Your task to perform on an android device: all mails in gmail Image 0: 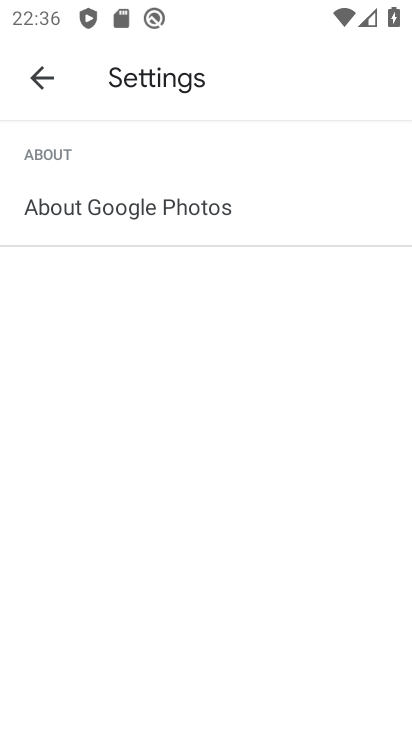
Step 0: press home button
Your task to perform on an android device: all mails in gmail Image 1: 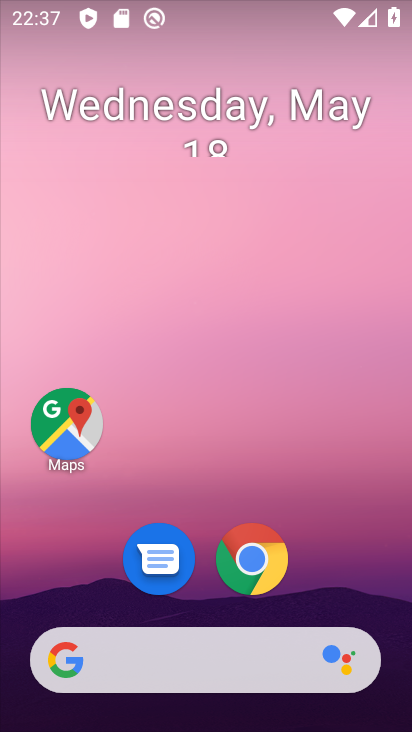
Step 1: drag from (185, 606) to (136, 207)
Your task to perform on an android device: all mails in gmail Image 2: 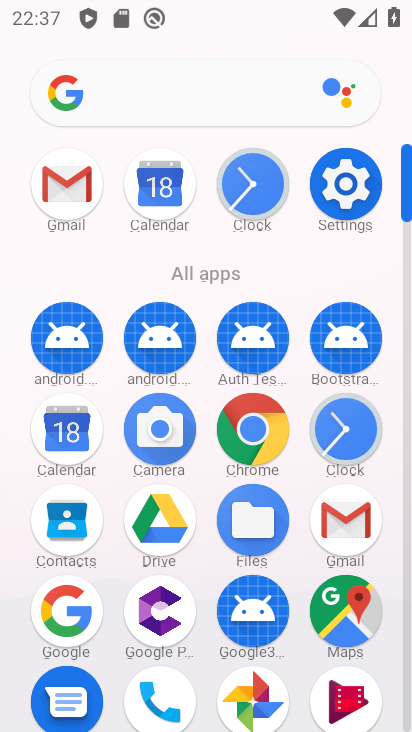
Step 2: click (72, 193)
Your task to perform on an android device: all mails in gmail Image 3: 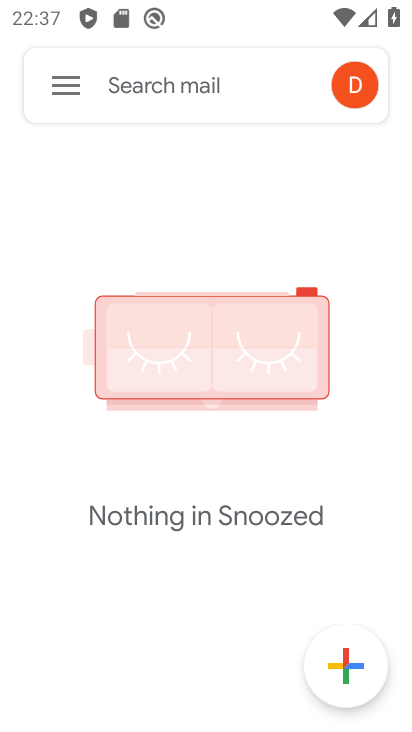
Step 3: click (58, 67)
Your task to perform on an android device: all mails in gmail Image 4: 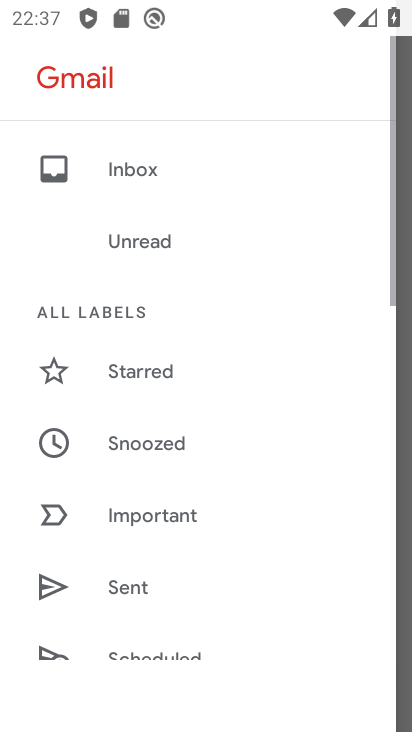
Step 4: drag from (109, 611) to (120, 322)
Your task to perform on an android device: all mails in gmail Image 5: 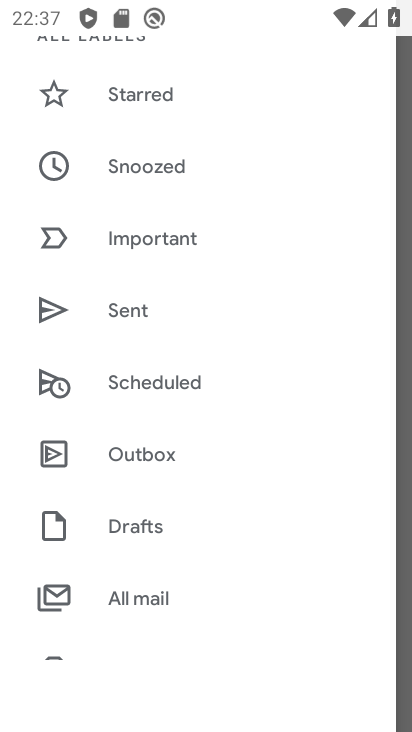
Step 5: click (143, 624)
Your task to perform on an android device: all mails in gmail Image 6: 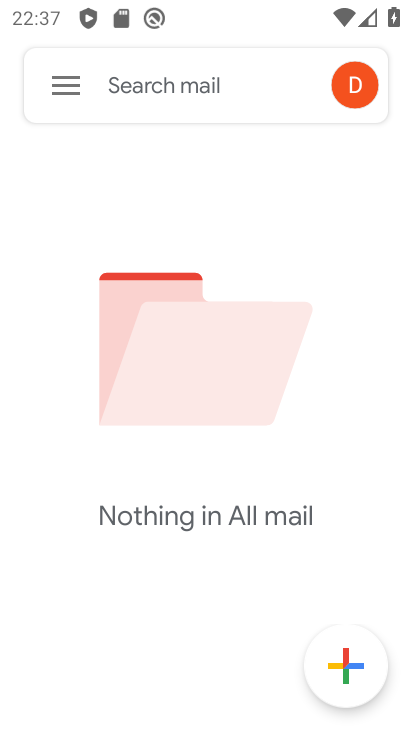
Step 6: task complete